Your task to perform on an android device: Open the Play Movies app and select the watchlist tab. Image 0: 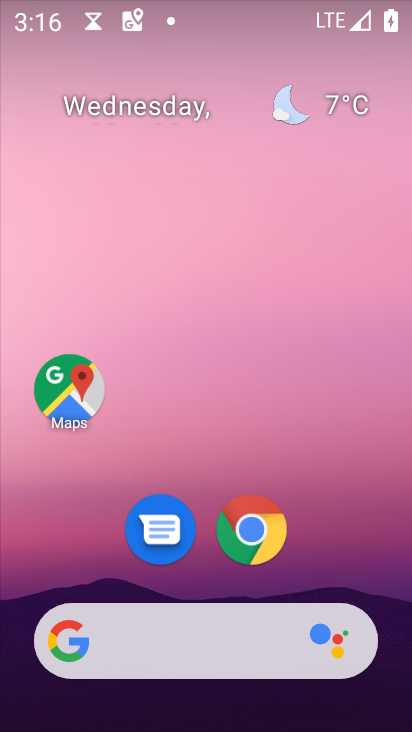
Step 0: drag from (345, 499) to (308, 121)
Your task to perform on an android device: Open the Play Movies app and select the watchlist tab. Image 1: 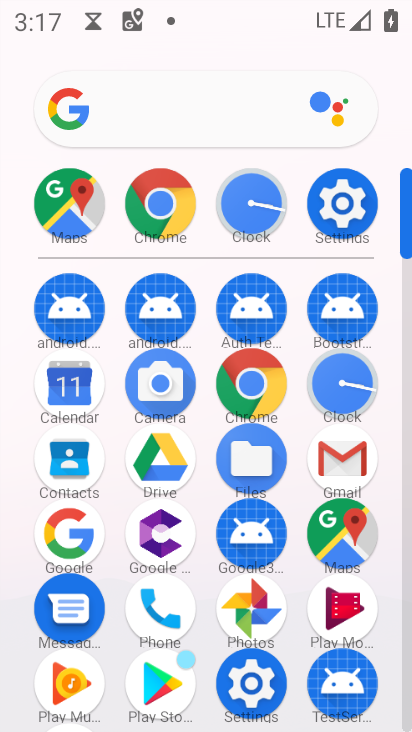
Step 1: click (342, 622)
Your task to perform on an android device: Open the Play Movies app and select the watchlist tab. Image 2: 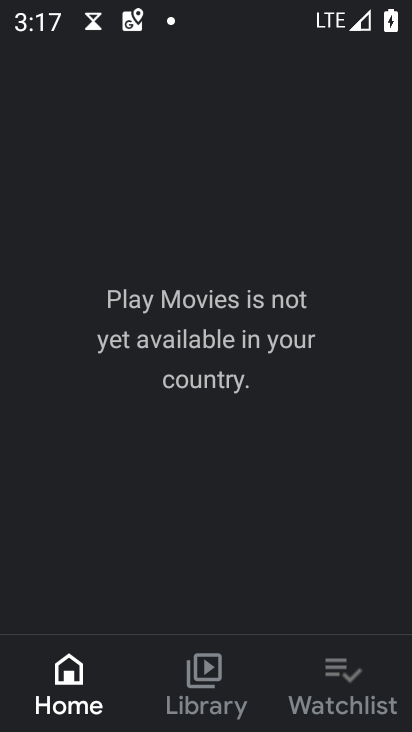
Step 2: click (342, 692)
Your task to perform on an android device: Open the Play Movies app and select the watchlist tab. Image 3: 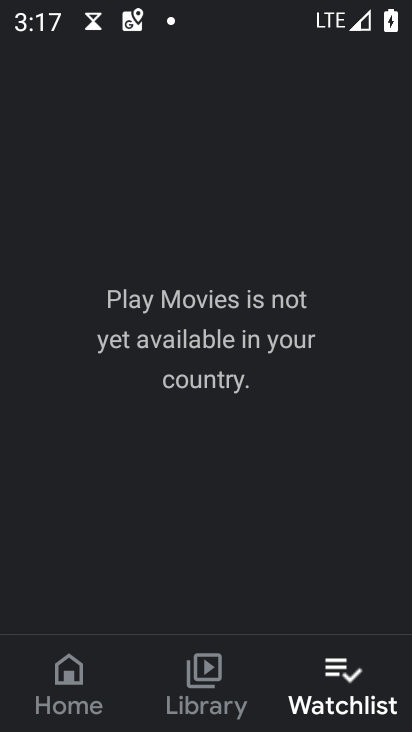
Step 3: task complete